Your task to perform on an android device: Go to Maps Image 0: 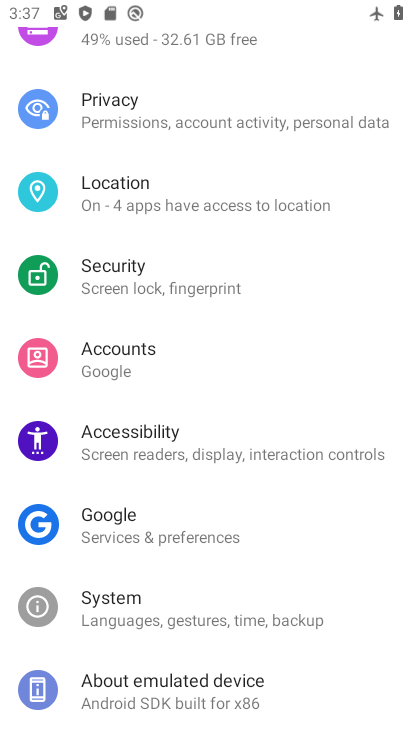
Step 0: press home button
Your task to perform on an android device: Go to Maps Image 1: 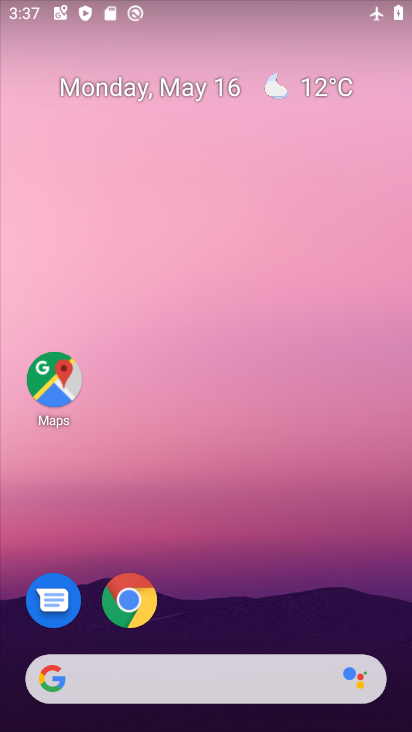
Step 1: click (60, 361)
Your task to perform on an android device: Go to Maps Image 2: 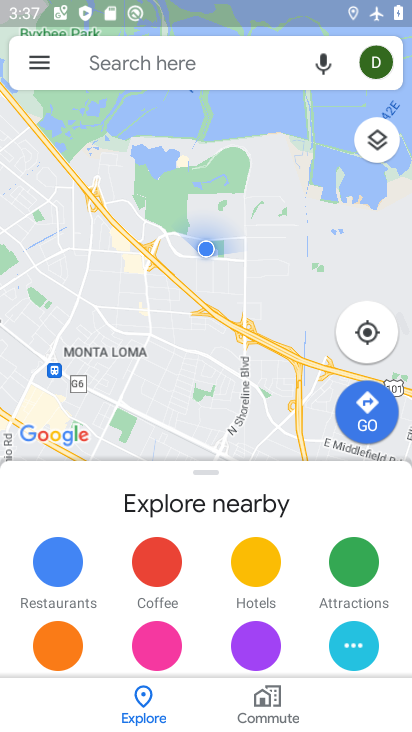
Step 2: task complete